Your task to perform on an android device: Go to privacy settings Image 0: 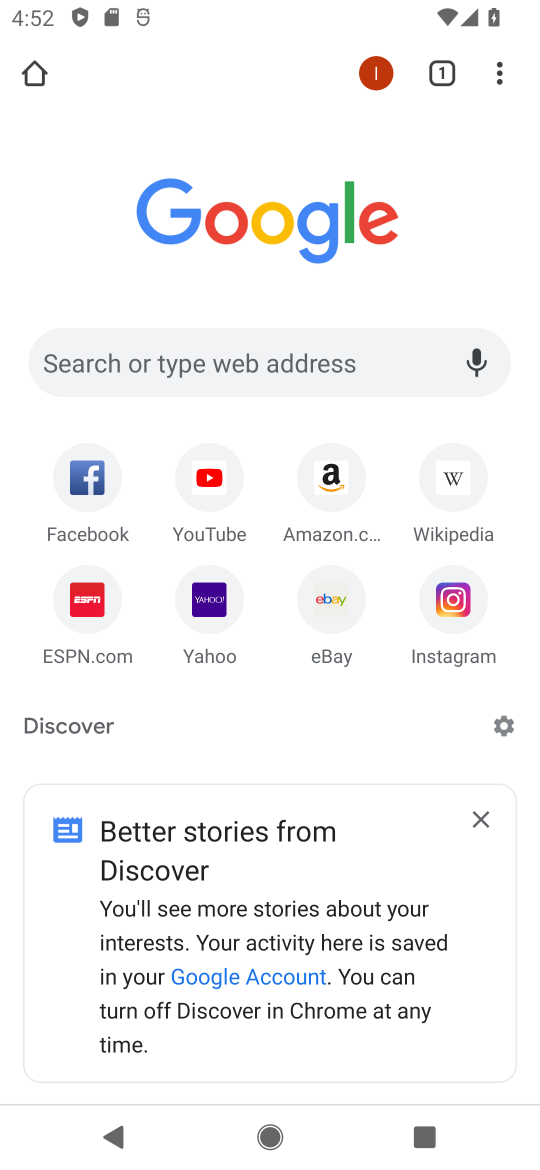
Step 0: press home button
Your task to perform on an android device: Go to privacy settings Image 1: 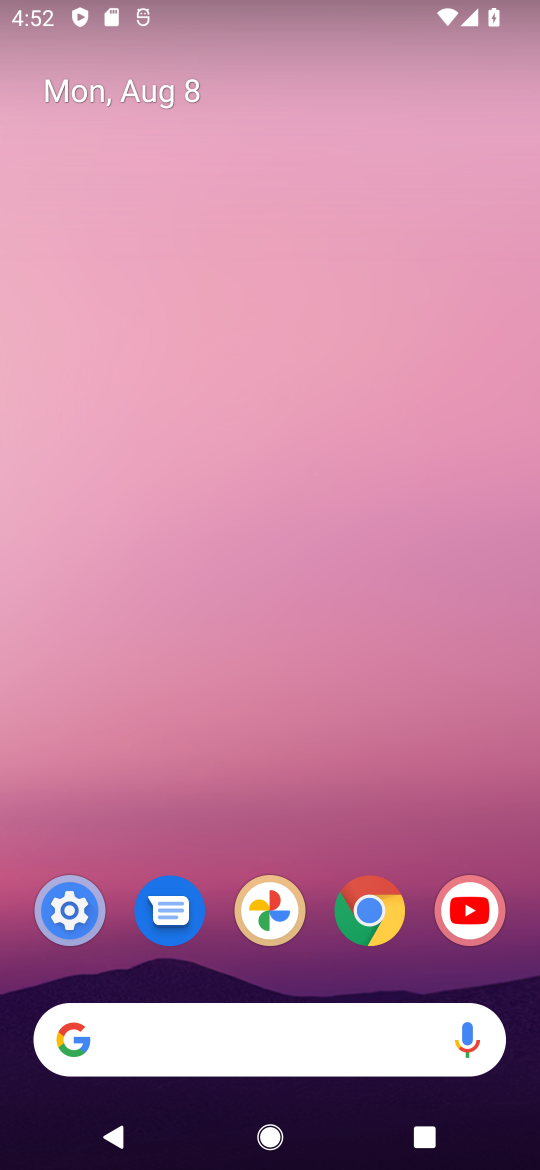
Step 1: drag from (240, 1049) to (292, 453)
Your task to perform on an android device: Go to privacy settings Image 2: 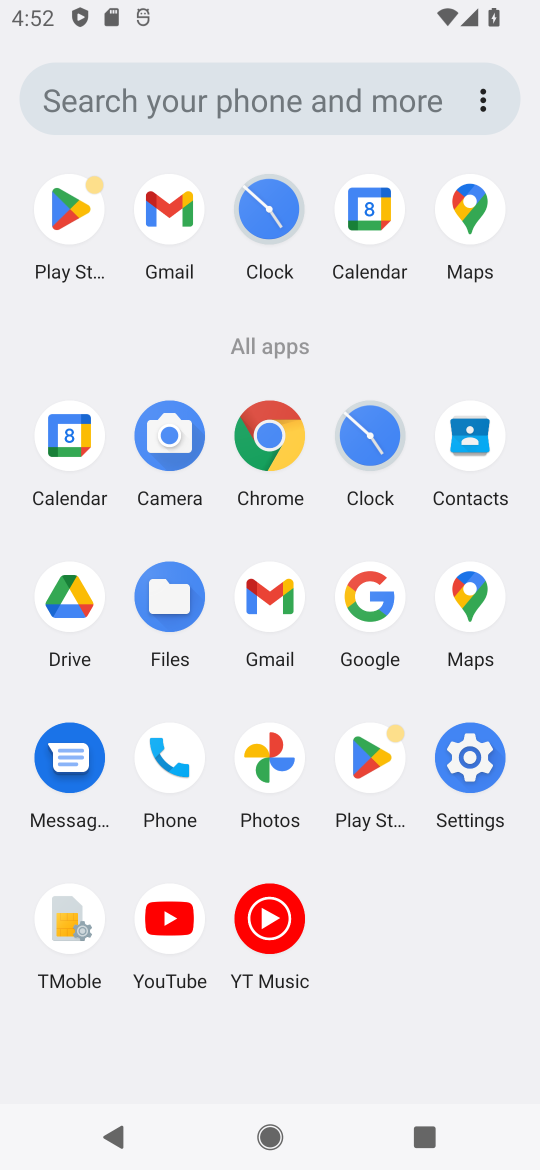
Step 2: click (474, 755)
Your task to perform on an android device: Go to privacy settings Image 3: 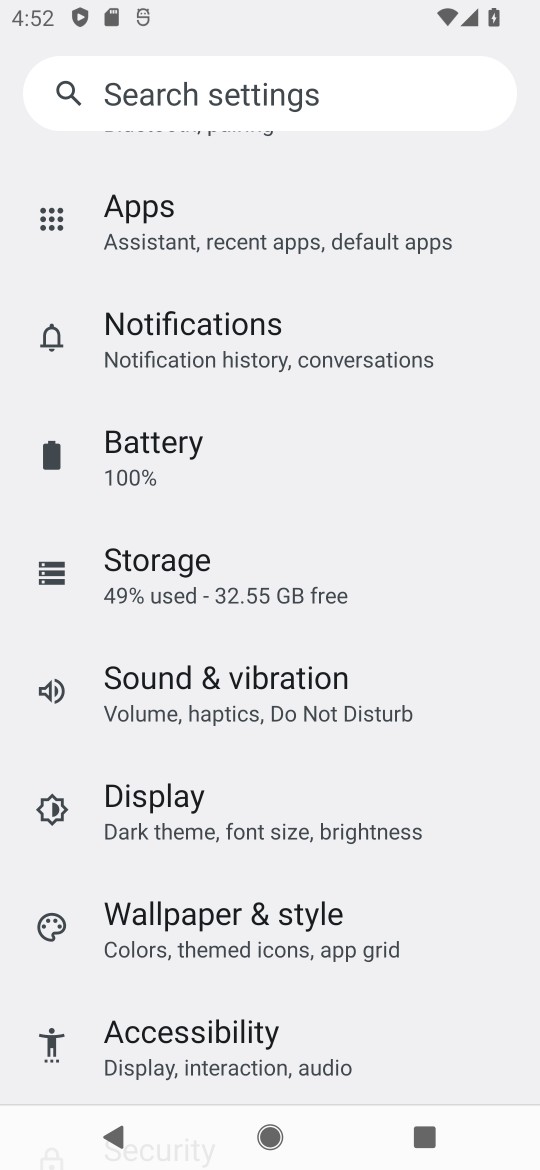
Step 3: drag from (279, 749) to (324, 599)
Your task to perform on an android device: Go to privacy settings Image 4: 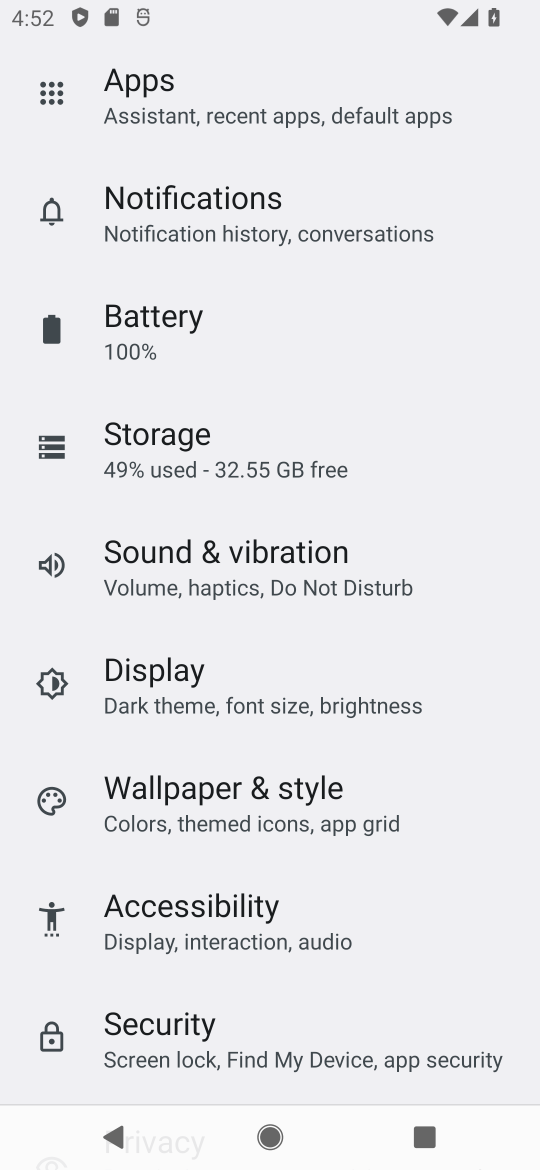
Step 4: drag from (218, 846) to (246, 712)
Your task to perform on an android device: Go to privacy settings Image 5: 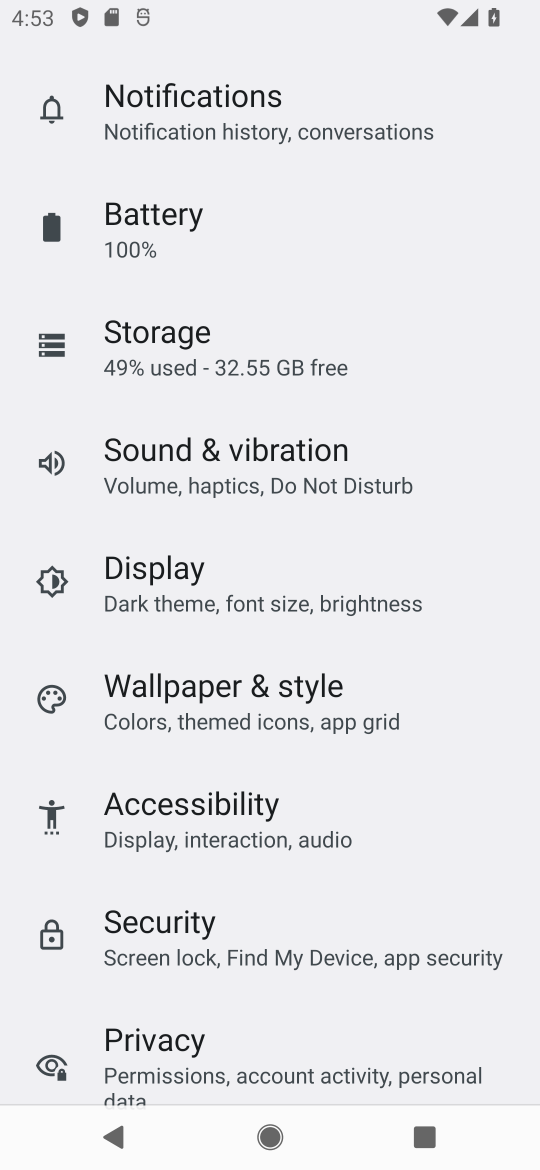
Step 5: drag from (192, 856) to (216, 676)
Your task to perform on an android device: Go to privacy settings Image 6: 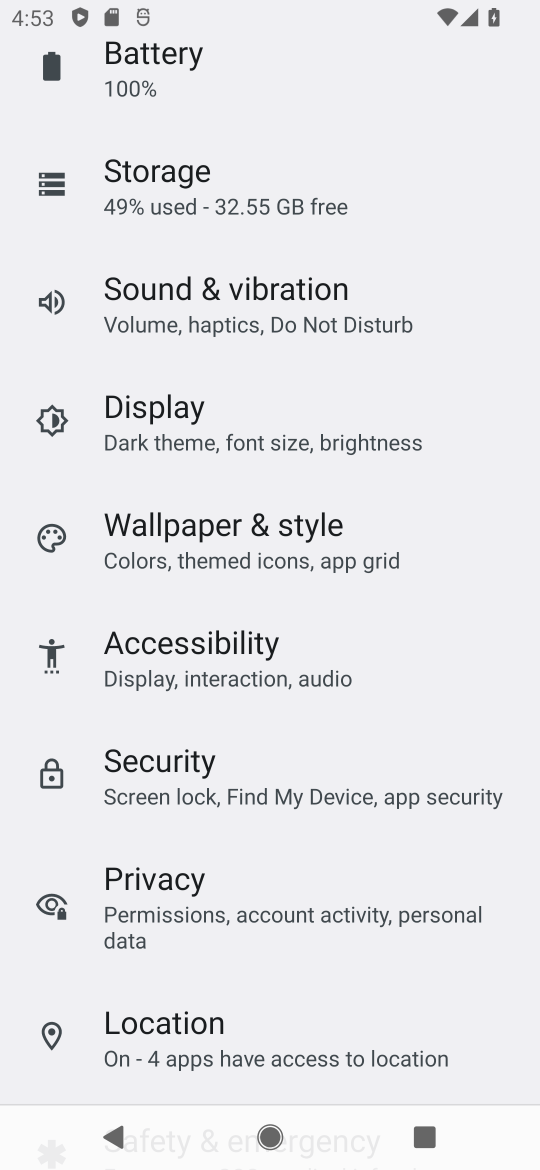
Step 6: click (209, 903)
Your task to perform on an android device: Go to privacy settings Image 7: 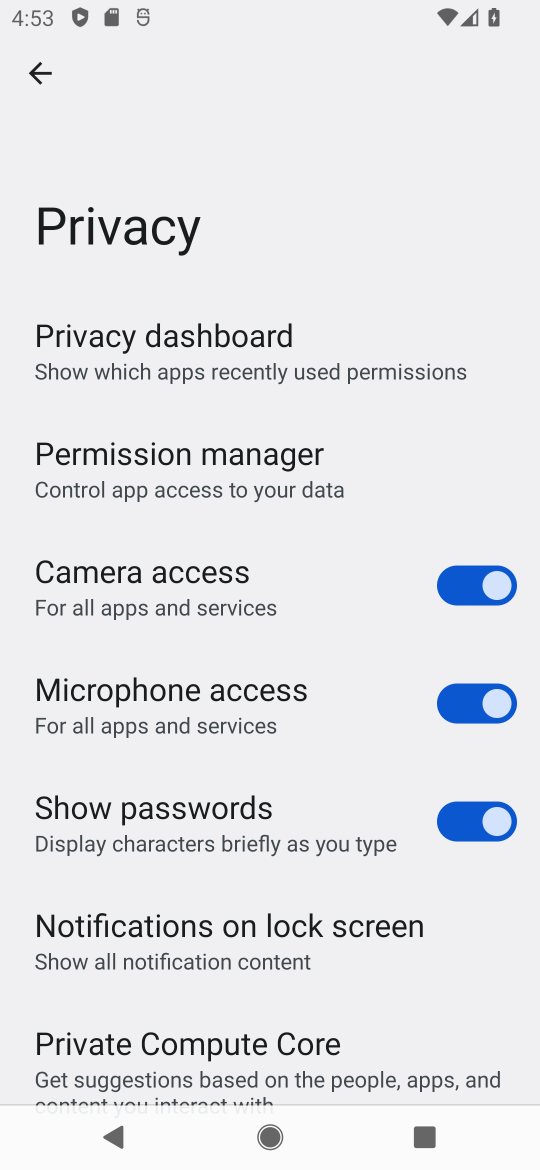
Step 7: task complete